Your task to perform on an android device: Open Amazon Image 0: 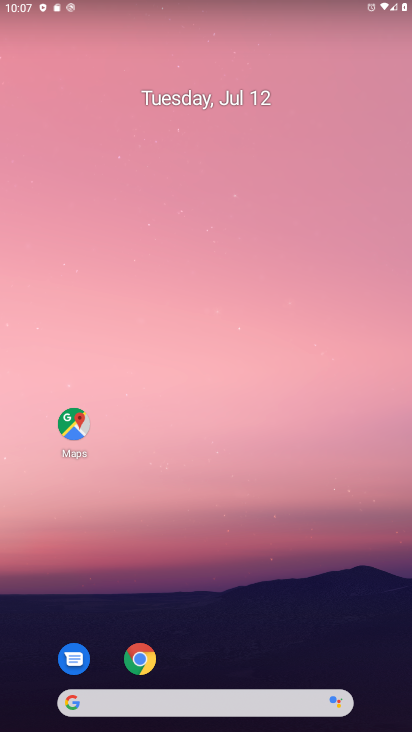
Step 0: click (146, 665)
Your task to perform on an android device: Open Amazon Image 1: 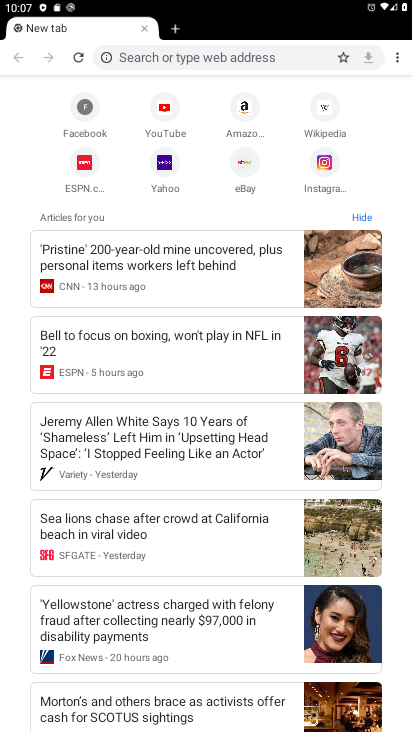
Step 1: click (234, 105)
Your task to perform on an android device: Open Amazon Image 2: 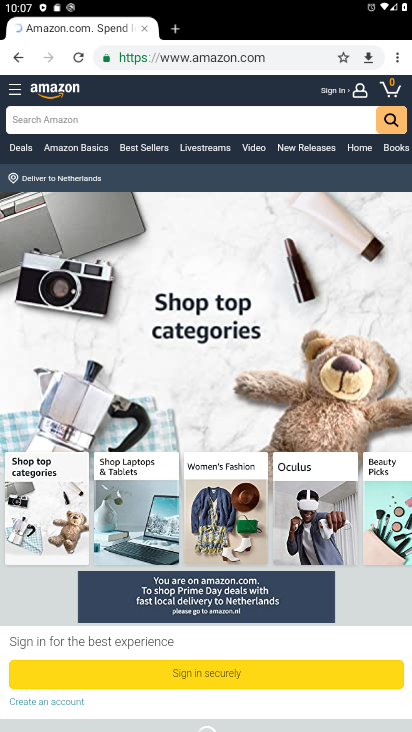
Step 2: task complete